Your task to perform on an android device: Open Chrome and go to settings Image 0: 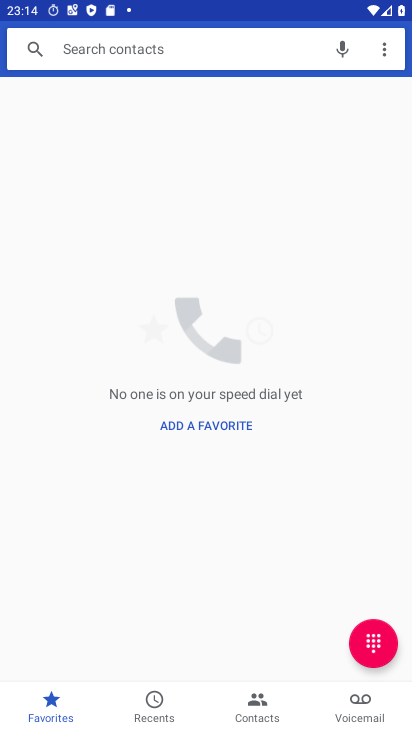
Step 0: press home button
Your task to perform on an android device: Open Chrome and go to settings Image 1: 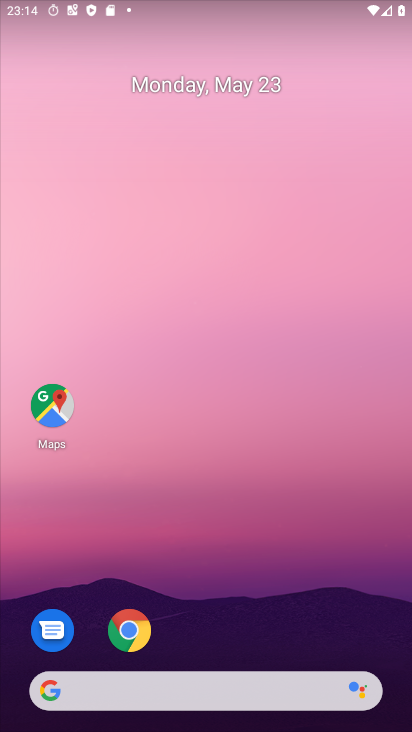
Step 1: click (131, 634)
Your task to perform on an android device: Open Chrome and go to settings Image 2: 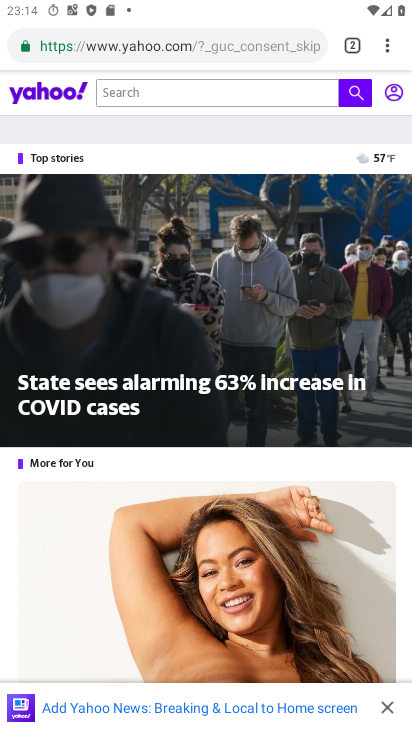
Step 2: click (392, 43)
Your task to perform on an android device: Open Chrome and go to settings Image 3: 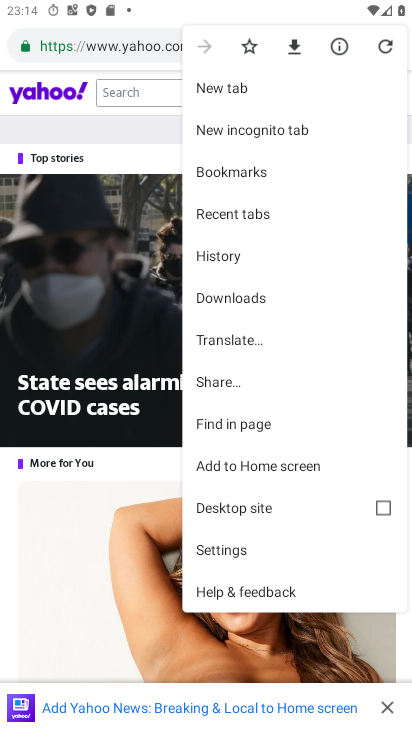
Step 3: click (209, 546)
Your task to perform on an android device: Open Chrome and go to settings Image 4: 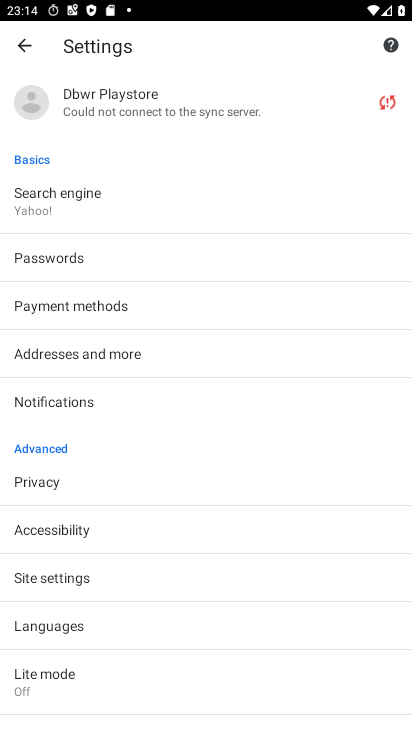
Step 4: task complete